Your task to perform on an android device: Go to Yahoo.com Image 0: 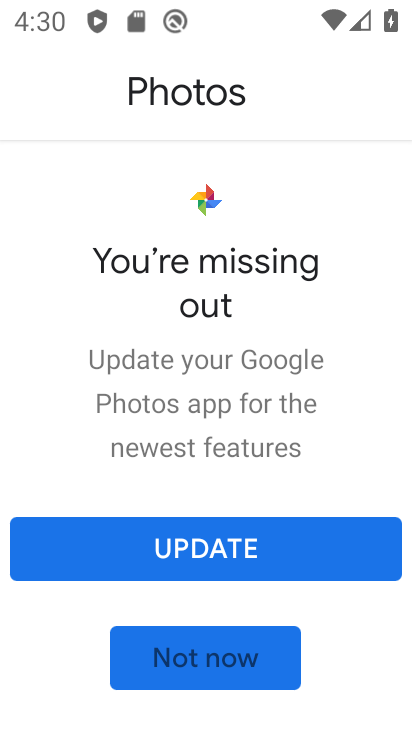
Step 0: press home button
Your task to perform on an android device: Go to Yahoo.com Image 1: 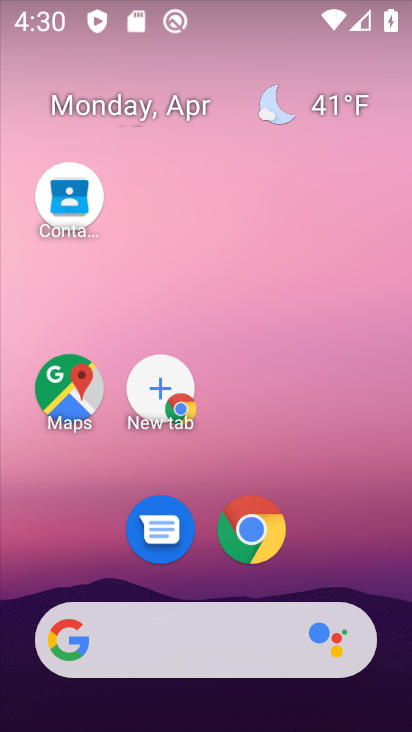
Step 1: click (244, 530)
Your task to perform on an android device: Go to Yahoo.com Image 2: 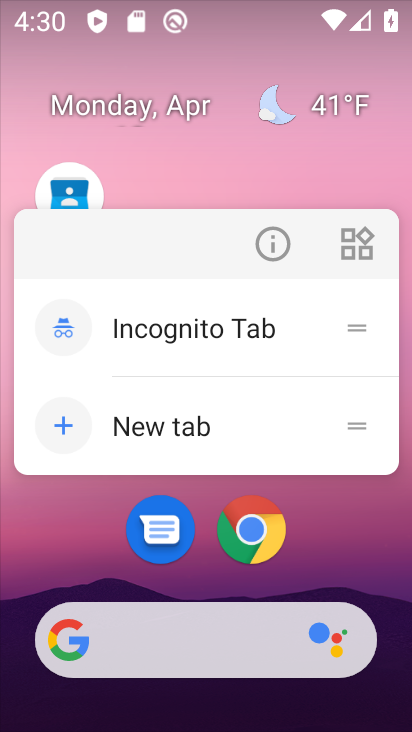
Step 2: click (248, 533)
Your task to perform on an android device: Go to Yahoo.com Image 3: 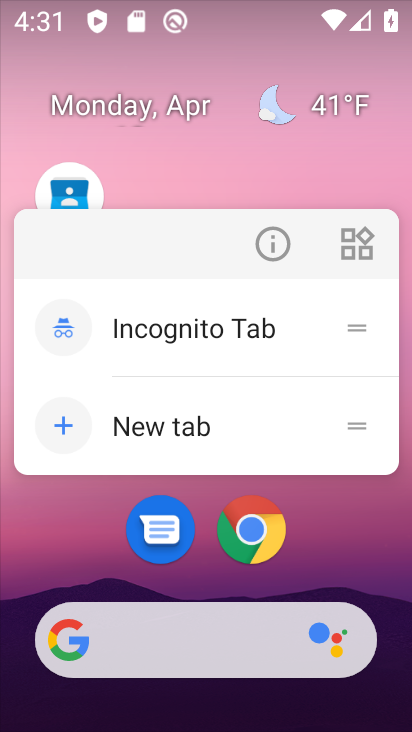
Step 3: click (248, 533)
Your task to perform on an android device: Go to Yahoo.com Image 4: 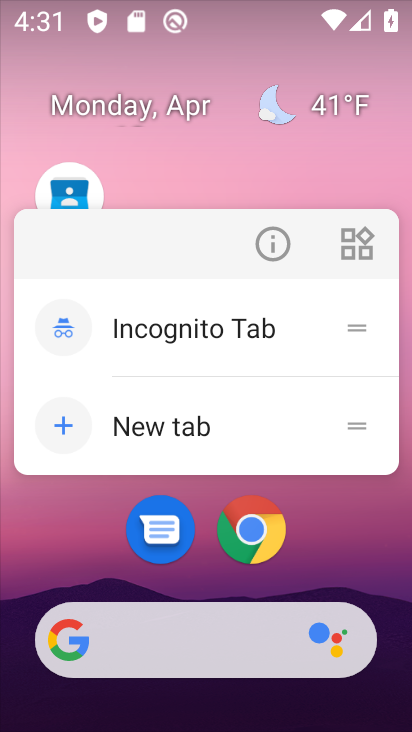
Step 4: click (248, 533)
Your task to perform on an android device: Go to Yahoo.com Image 5: 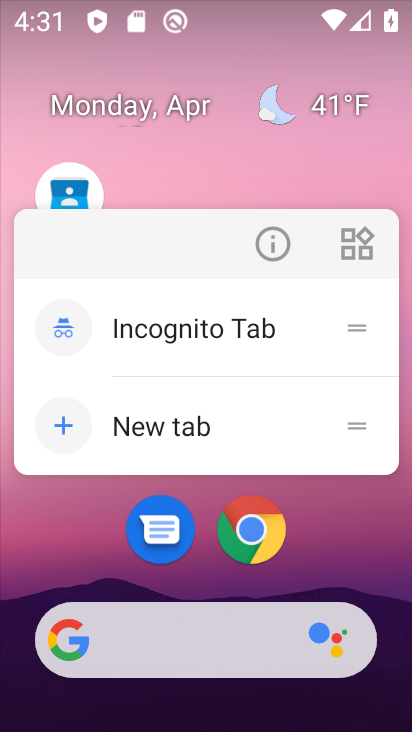
Step 5: click (268, 527)
Your task to perform on an android device: Go to Yahoo.com Image 6: 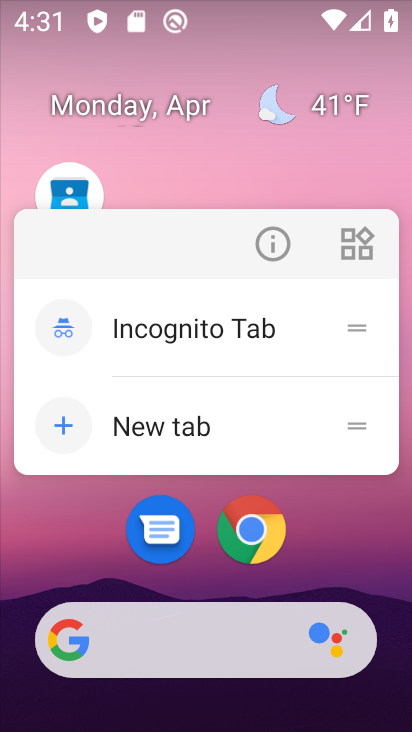
Step 6: click (219, 421)
Your task to perform on an android device: Go to Yahoo.com Image 7: 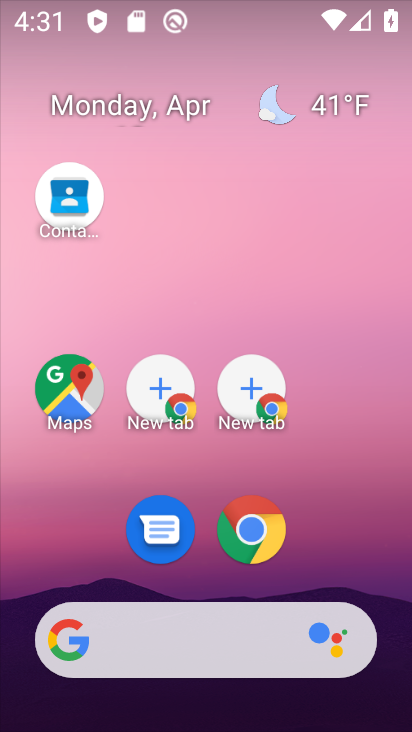
Step 7: click (291, 382)
Your task to perform on an android device: Go to Yahoo.com Image 8: 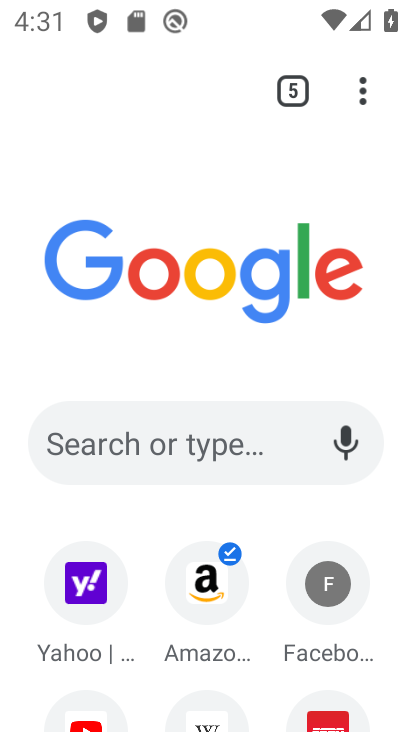
Step 8: click (242, 395)
Your task to perform on an android device: Go to Yahoo.com Image 9: 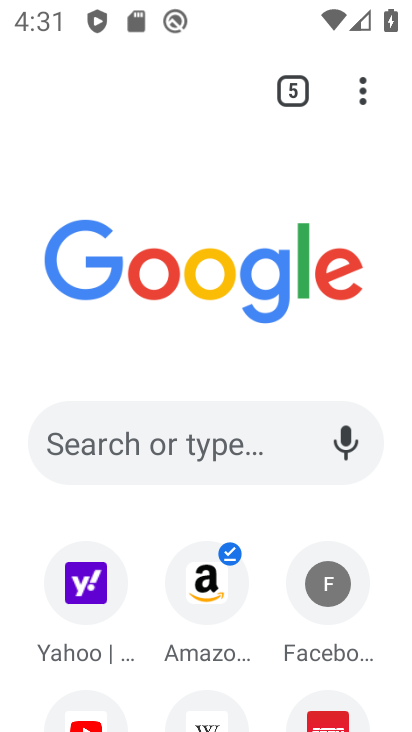
Step 9: click (86, 556)
Your task to perform on an android device: Go to Yahoo.com Image 10: 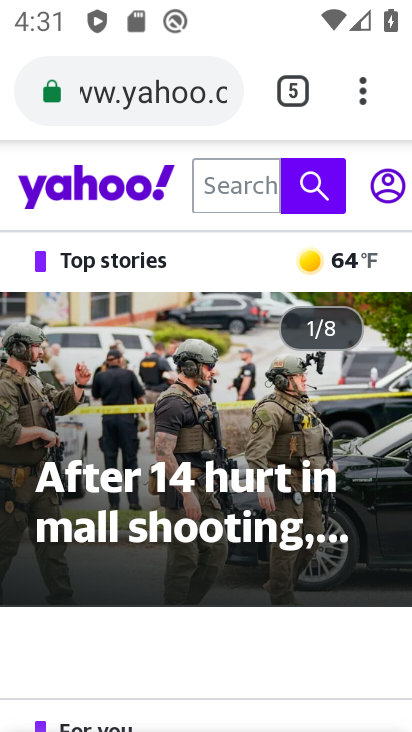
Step 10: task complete